Your task to perform on an android device: delete a single message in the gmail app Image 0: 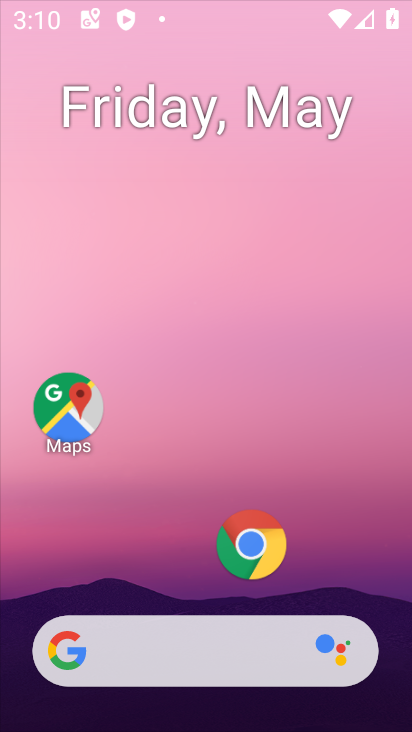
Step 0: click (239, 559)
Your task to perform on an android device: delete a single message in the gmail app Image 1: 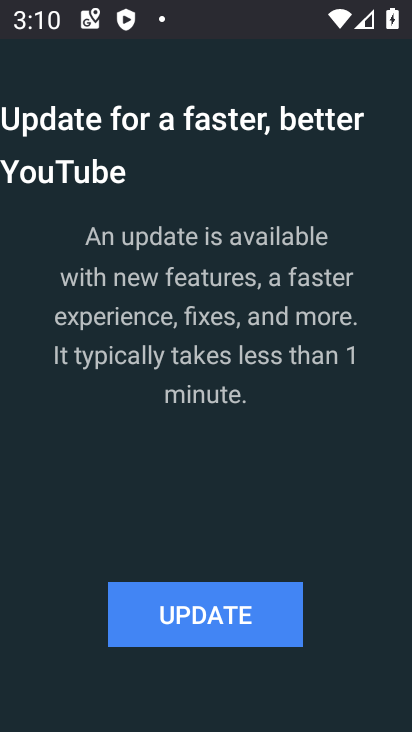
Step 1: click (249, 592)
Your task to perform on an android device: delete a single message in the gmail app Image 2: 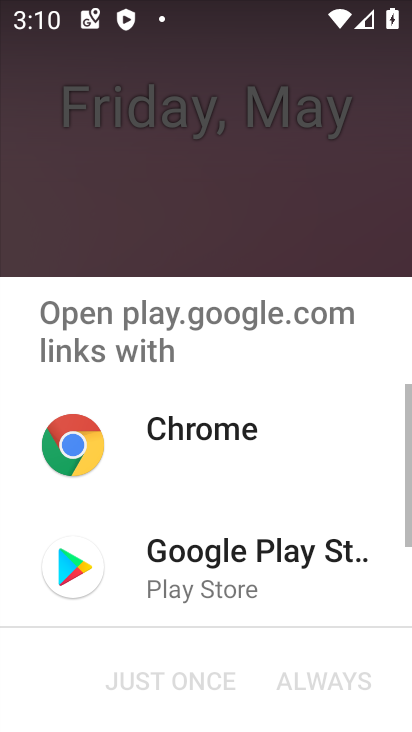
Step 2: click (245, 569)
Your task to perform on an android device: delete a single message in the gmail app Image 3: 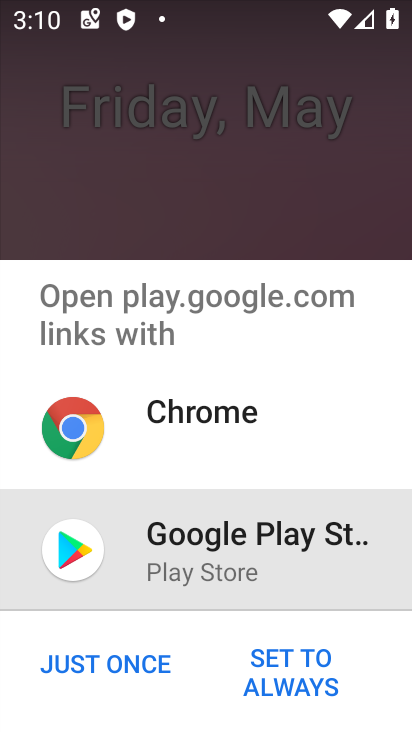
Step 3: type ""
Your task to perform on an android device: delete a single message in the gmail app Image 4: 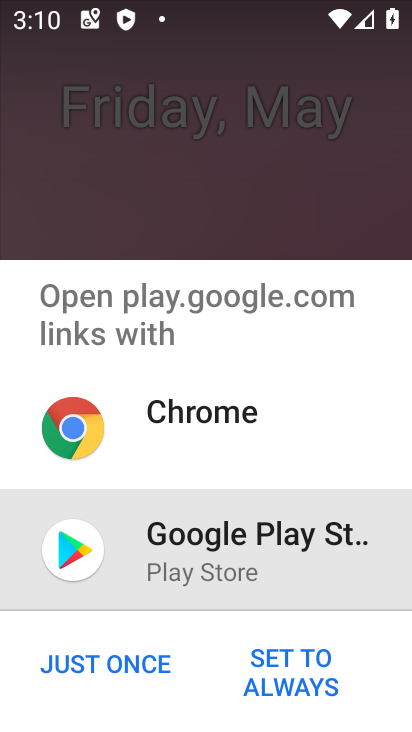
Step 4: press home button
Your task to perform on an android device: delete a single message in the gmail app Image 5: 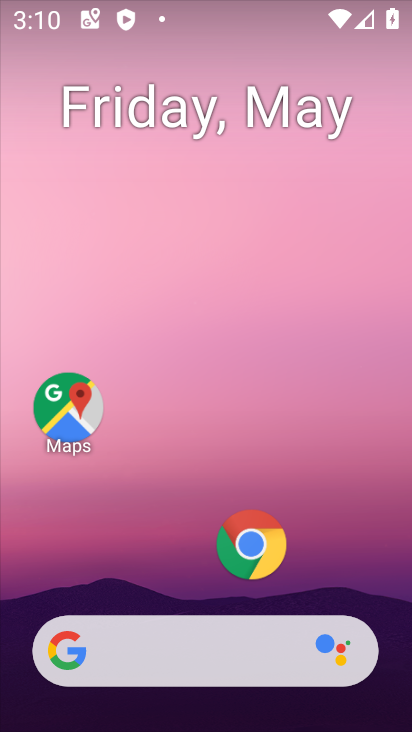
Step 5: drag from (189, 508) to (227, 213)
Your task to perform on an android device: delete a single message in the gmail app Image 6: 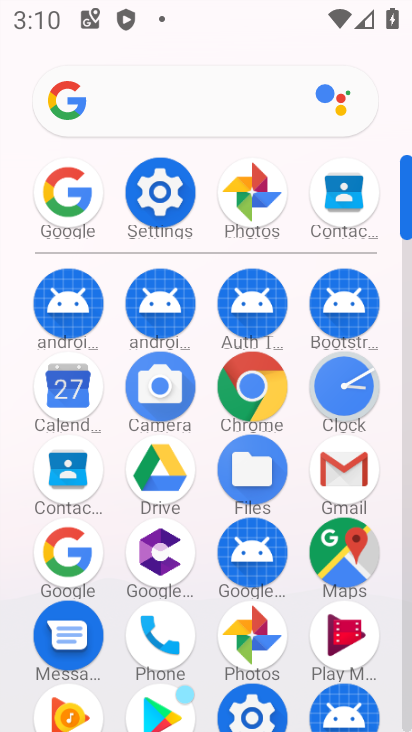
Step 6: click (334, 449)
Your task to perform on an android device: delete a single message in the gmail app Image 7: 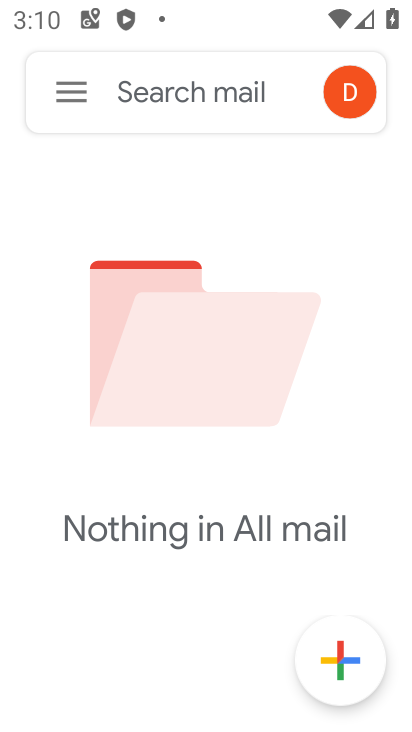
Step 7: click (63, 81)
Your task to perform on an android device: delete a single message in the gmail app Image 8: 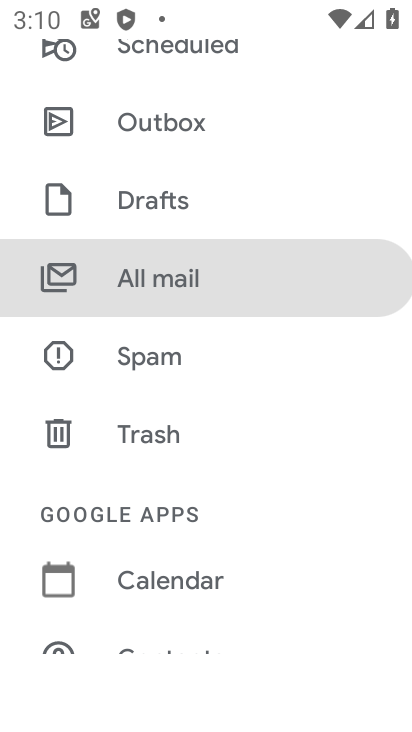
Step 8: click (162, 278)
Your task to perform on an android device: delete a single message in the gmail app Image 9: 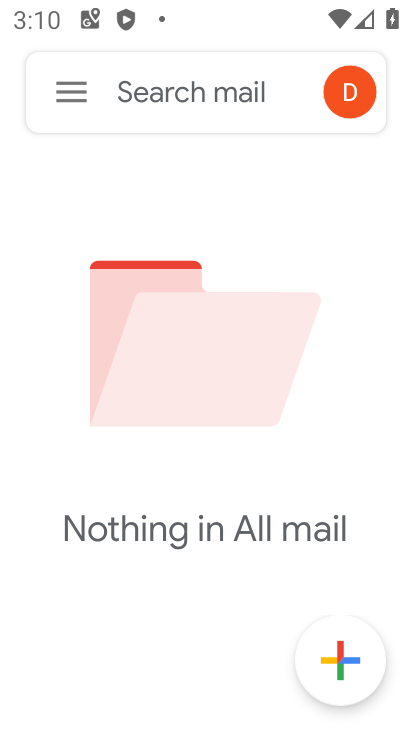
Step 9: task complete